Your task to perform on an android device: turn on sleep mode Image 0: 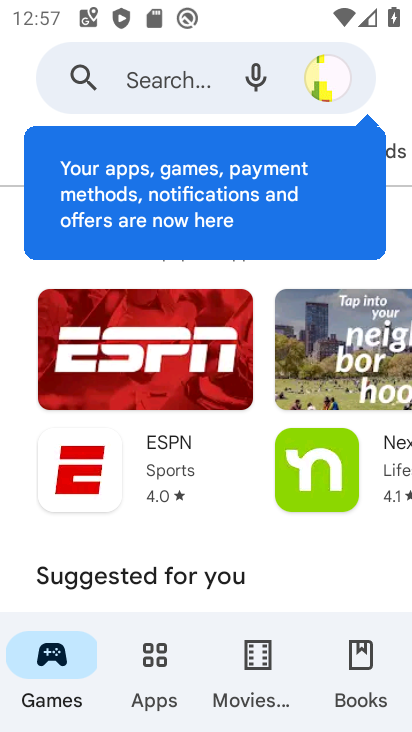
Step 0: press home button
Your task to perform on an android device: turn on sleep mode Image 1: 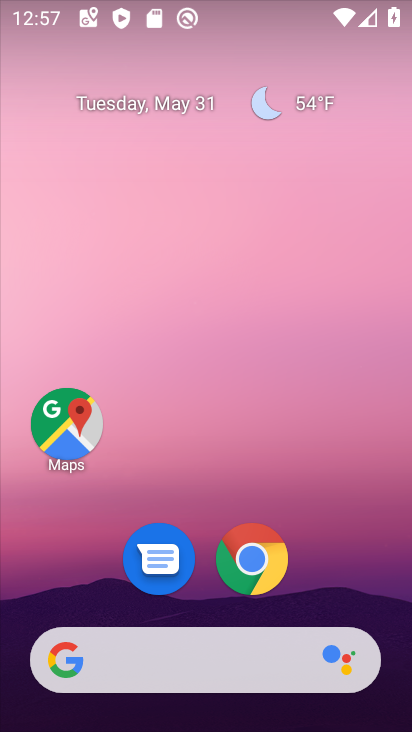
Step 1: task complete